Your task to perform on an android device: toggle pop-ups in chrome Image 0: 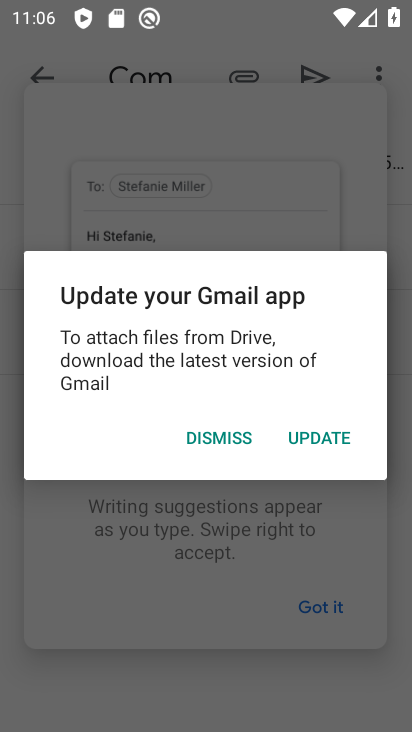
Step 0: press home button
Your task to perform on an android device: toggle pop-ups in chrome Image 1: 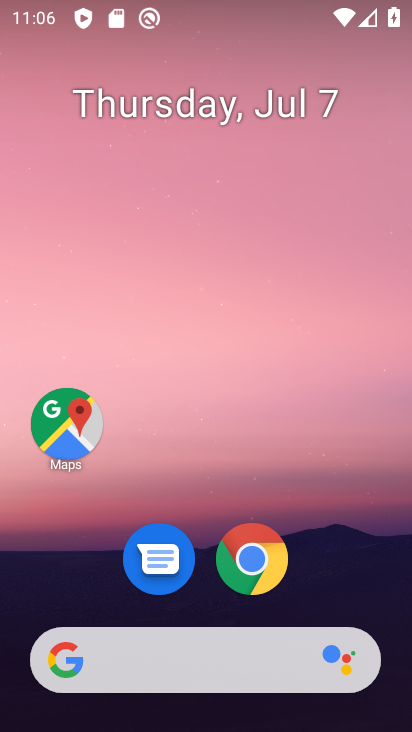
Step 1: drag from (369, 575) to (323, 83)
Your task to perform on an android device: toggle pop-ups in chrome Image 2: 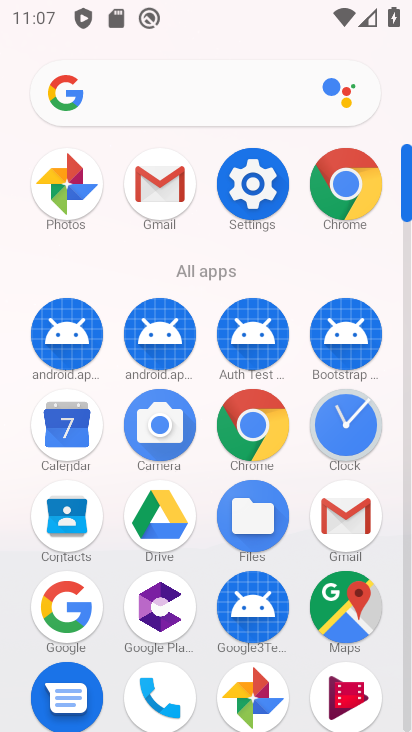
Step 2: click (261, 418)
Your task to perform on an android device: toggle pop-ups in chrome Image 3: 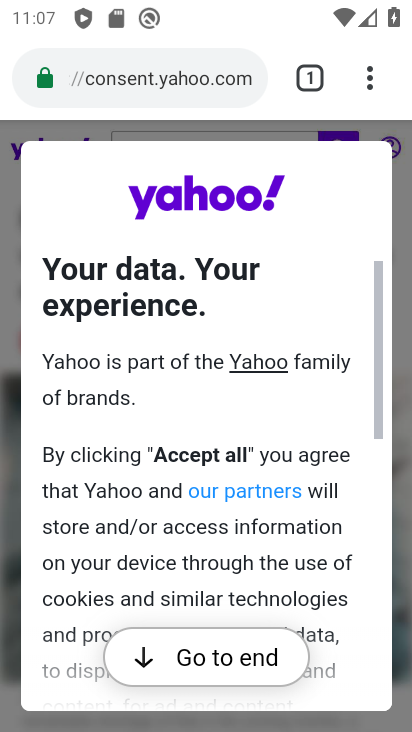
Step 3: click (370, 85)
Your task to perform on an android device: toggle pop-ups in chrome Image 4: 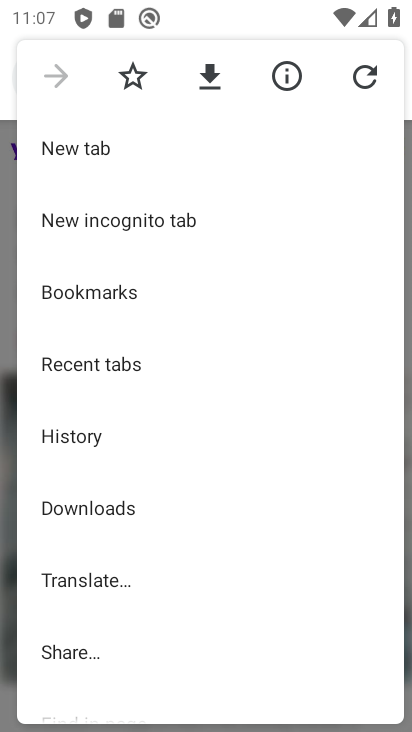
Step 4: drag from (320, 408) to (308, 309)
Your task to perform on an android device: toggle pop-ups in chrome Image 5: 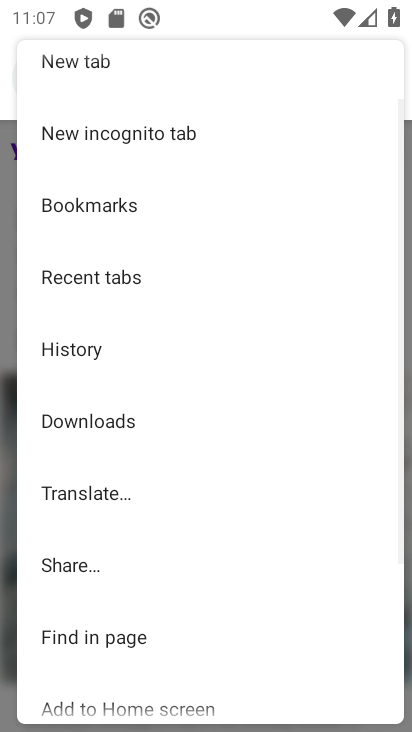
Step 5: drag from (308, 406) to (317, 302)
Your task to perform on an android device: toggle pop-ups in chrome Image 6: 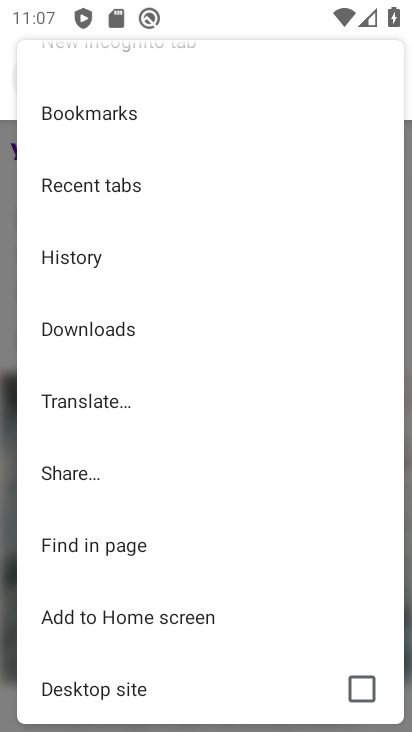
Step 6: drag from (309, 389) to (309, 281)
Your task to perform on an android device: toggle pop-ups in chrome Image 7: 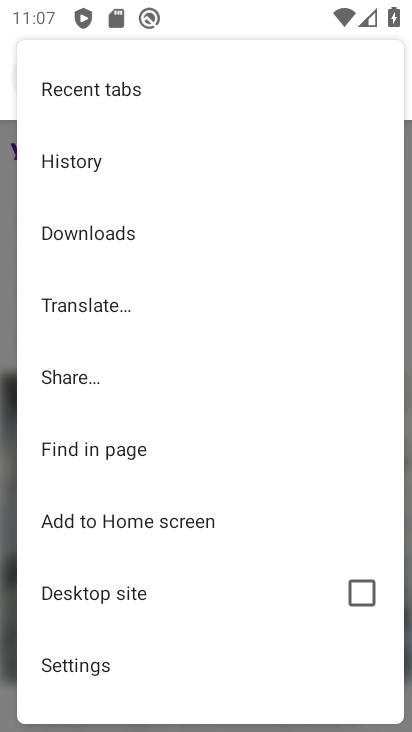
Step 7: drag from (308, 455) to (308, 347)
Your task to perform on an android device: toggle pop-ups in chrome Image 8: 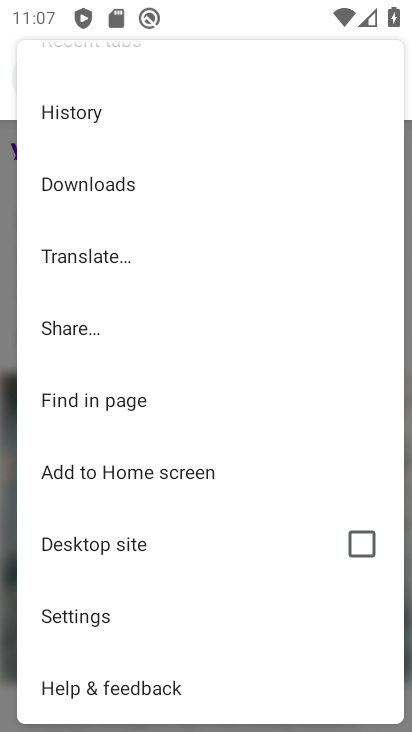
Step 8: click (106, 622)
Your task to perform on an android device: toggle pop-ups in chrome Image 9: 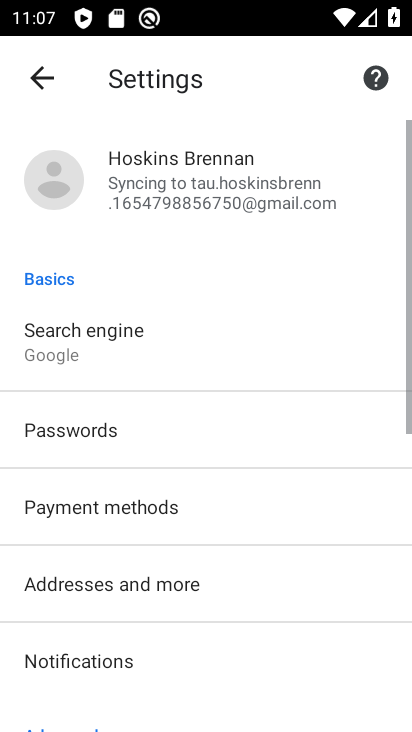
Step 9: drag from (311, 517) to (311, 444)
Your task to perform on an android device: toggle pop-ups in chrome Image 10: 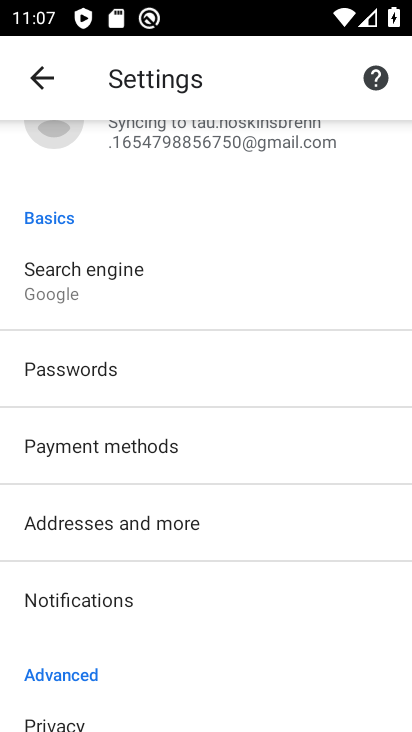
Step 10: drag from (323, 531) to (324, 451)
Your task to perform on an android device: toggle pop-ups in chrome Image 11: 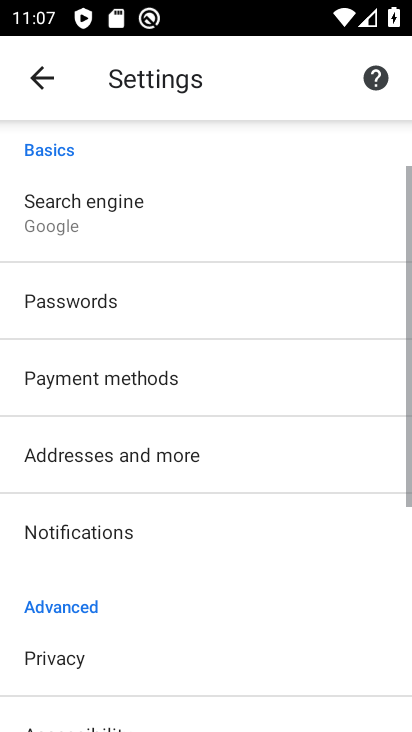
Step 11: drag from (329, 570) to (332, 460)
Your task to perform on an android device: toggle pop-ups in chrome Image 12: 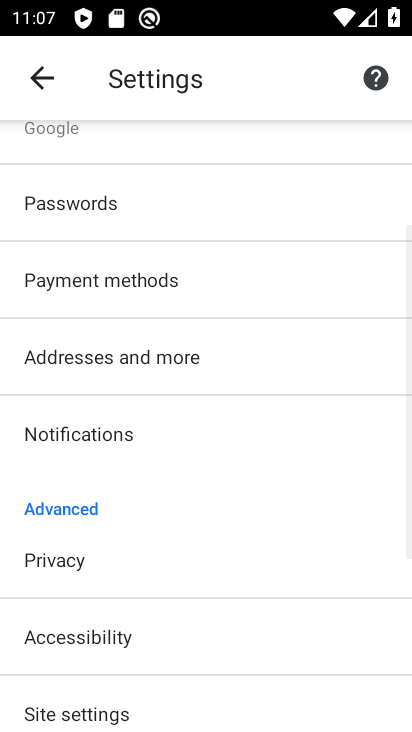
Step 12: drag from (337, 574) to (341, 460)
Your task to perform on an android device: toggle pop-ups in chrome Image 13: 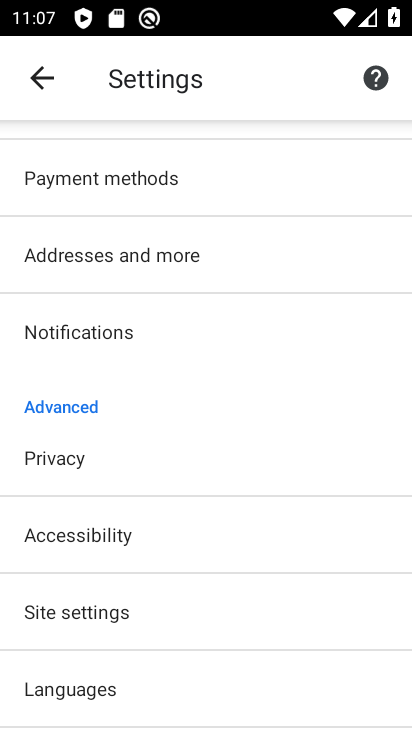
Step 13: drag from (341, 587) to (341, 472)
Your task to perform on an android device: toggle pop-ups in chrome Image 14: 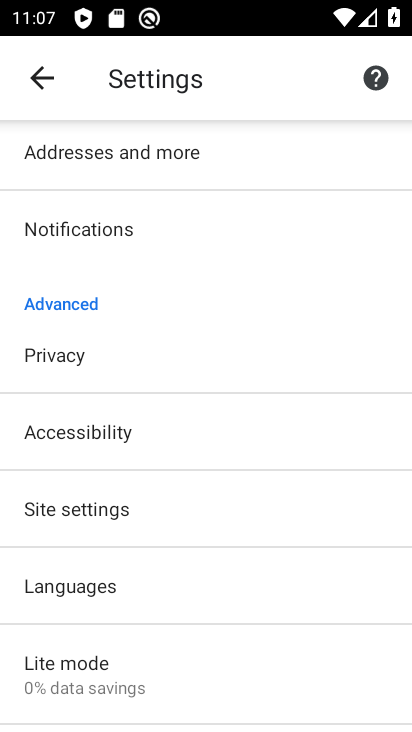
Step 14: drag from (336, 593) to (340, 484)
Your task to perform on an android device: toggle pop-ups in chrome Image 15: 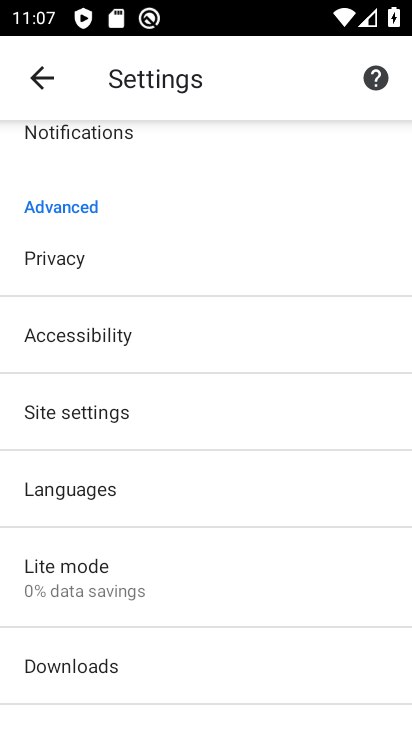
Step 15: click (261, 390)
Your task to perform on an android device: toggle pop-ups in chrome Image 16: 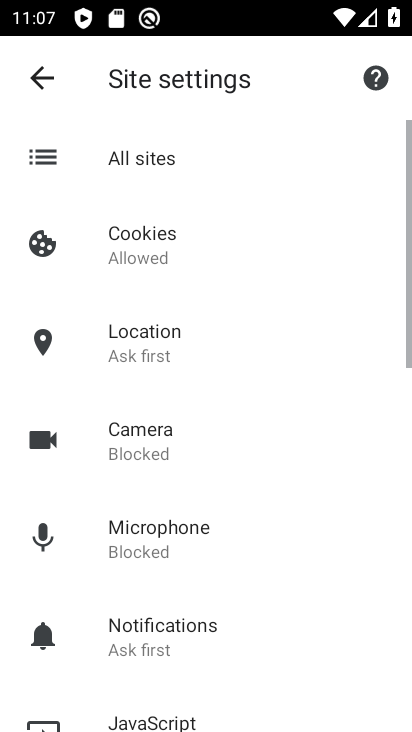
Step 16: drag from (308, 492) to (305, 304)
Your task to perform on an android device: toggle pop-ups in chrome Image 17: 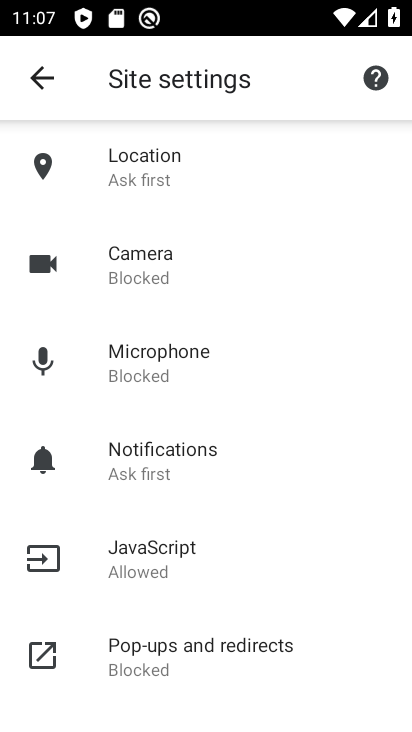
Step 17: drag from (312, 481) to (314, 342)
Your task to perform on an android device: toggle pop-ups in chrome Image 18: 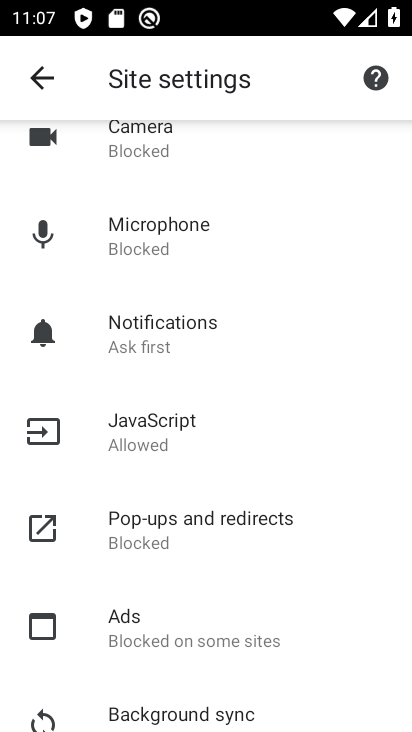
Step 18: drag from (343, 549) to (323, 415)
Your task to perform on an android device: toggle pop-ups in chrome Image 19: 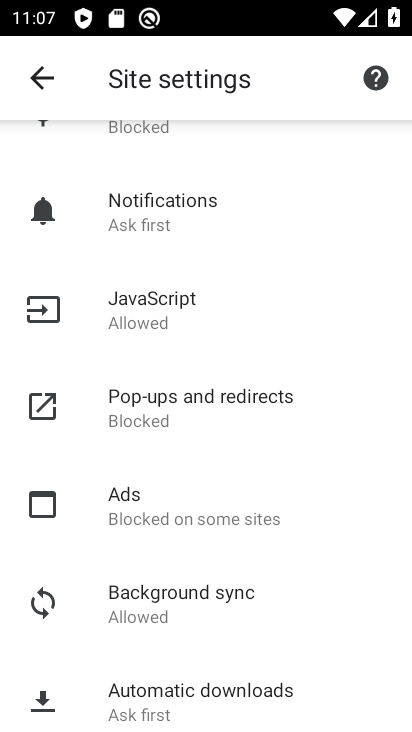
Step 19: click (299, 425)
Your task to perform on an android device: toggle pop-ups in chrome Image 20: 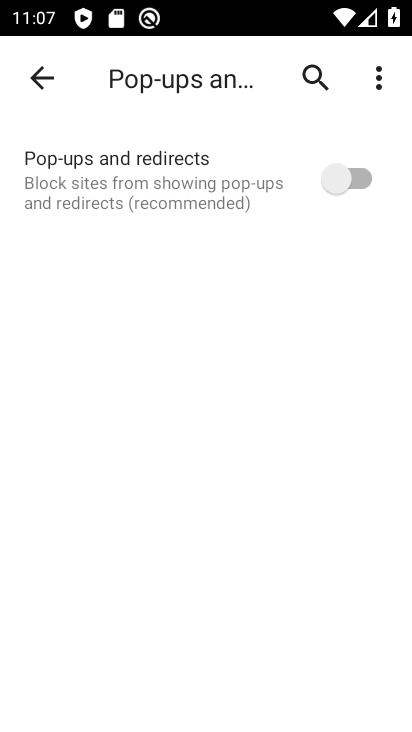
Step 20: click (337, 171)
Your task to perform on an android device: toggle pop-ups in chrome Image 21: 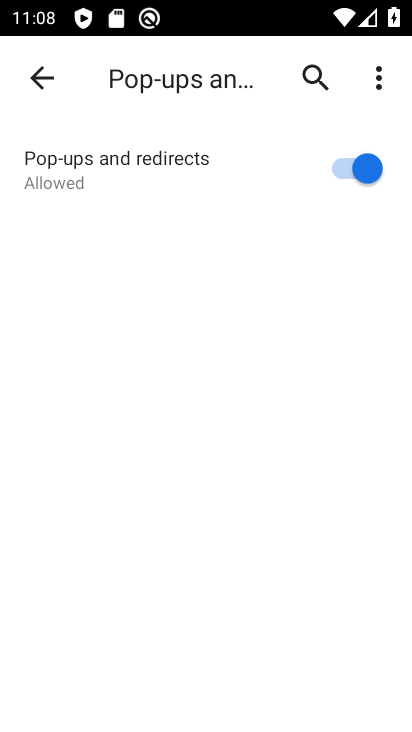
Step 21: task complete